Your task to perform on an android device: set the timer Image 0: 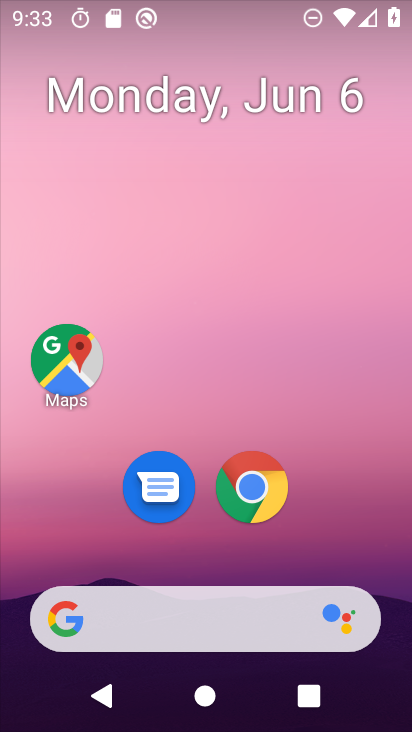
Step 0: drag from (402, 639) to (334, 62)
Your task to perform on an android device: set the timer Image 1: 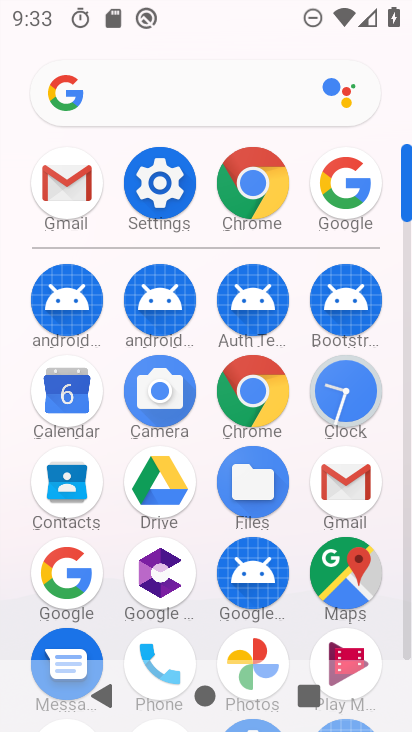
Step 1: click (338, 408)
Your task to perform on an android device: set the timer Image 2: 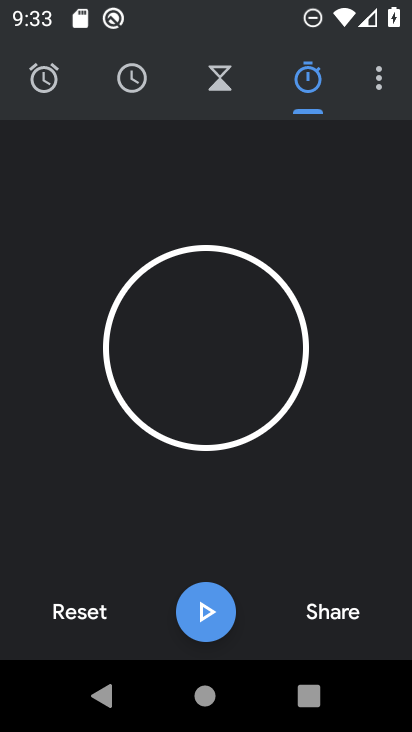
Step 2: click (383, 73)
Your task to perform on an android device: set the timer Image 3: 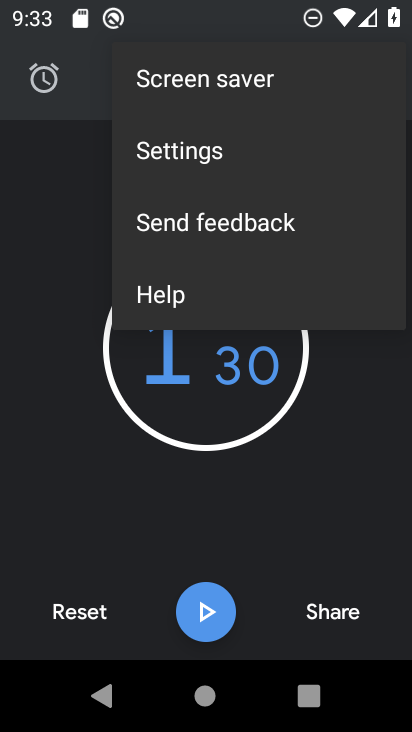
Step 3: click (255, 157)
Your task to perform on an android device: set the timer Image 4: 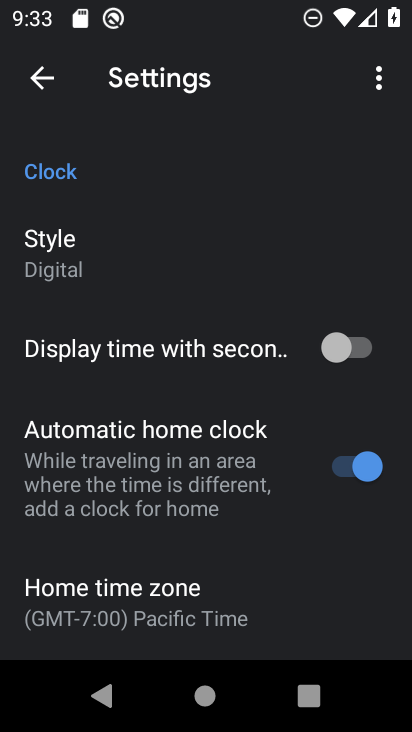
Step 4: click (160, 602)
Your task to perform on an android device: set the timer Image 5: 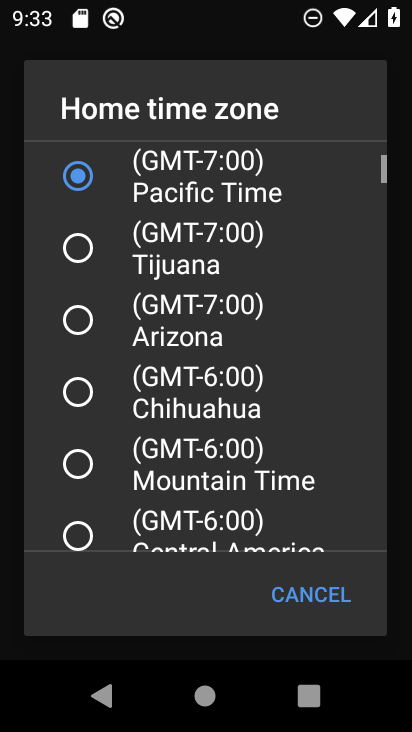
Step 5: click (152, 470)
Your task to perform on an android device: set the timer Image 6: 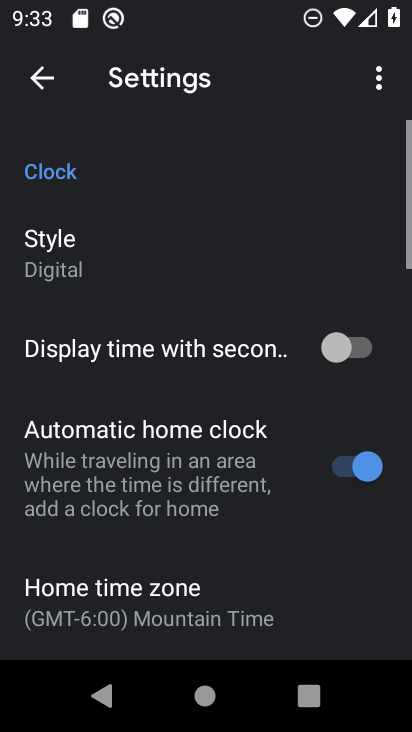
Step 6: task complete